Your task to perform on an android device: turn notification dots on Image 0: 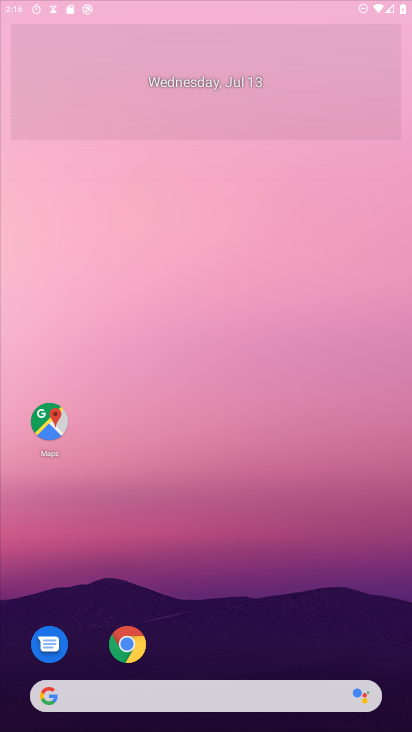
Step 0: press home button
Your task to perform on an android device: turn notification dots on Image 1: 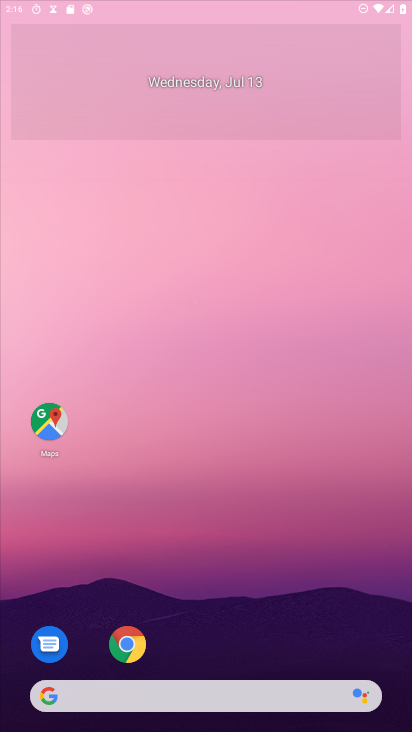
Step 1: click (237, 79)
Your task to perform on an android device: turn notification dots on Image 2: 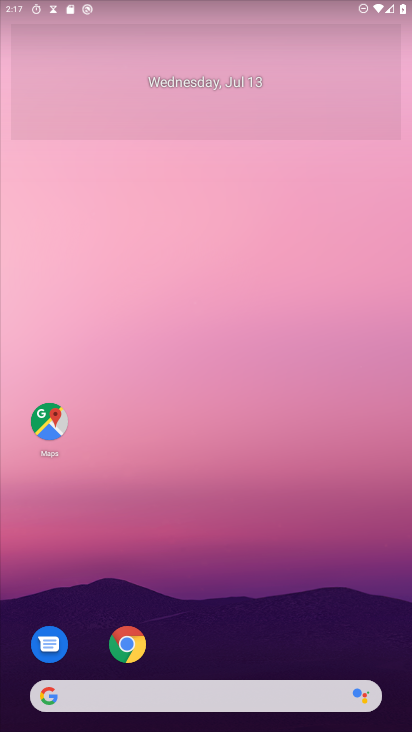
Step 2: drag from (216, 638) to (242, 73)
Your task to perform on an android device: turn notification dots on Image 3: 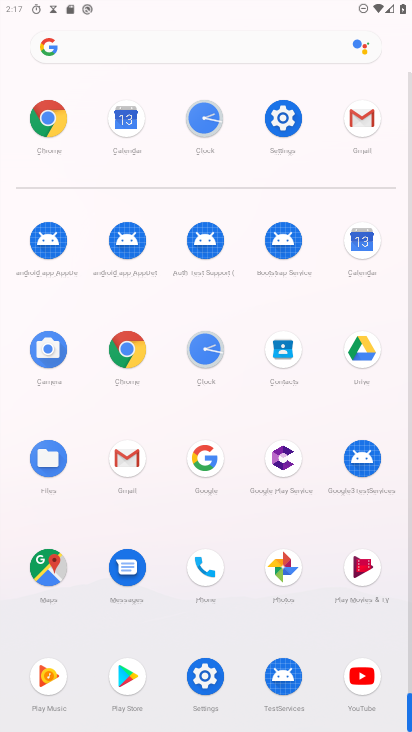
Step 3: click (297, 130)
Your task to perform on an android device: turn notification dots on Image 4: 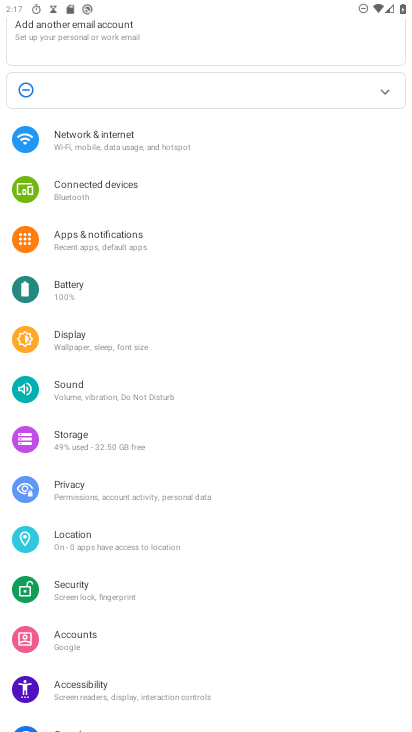
Step 4: click (102, 237)
Your task to perform on an android device: turn notification dots on Image 5: 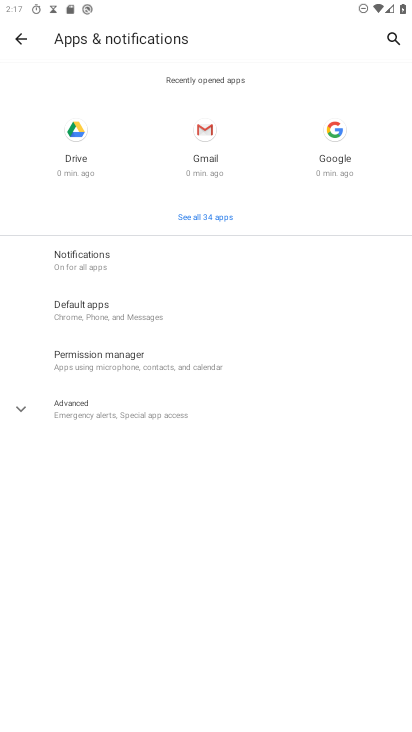
Step 5: click (66, 254)
Your task to perform on an android device: turn notification dots on Image 6: 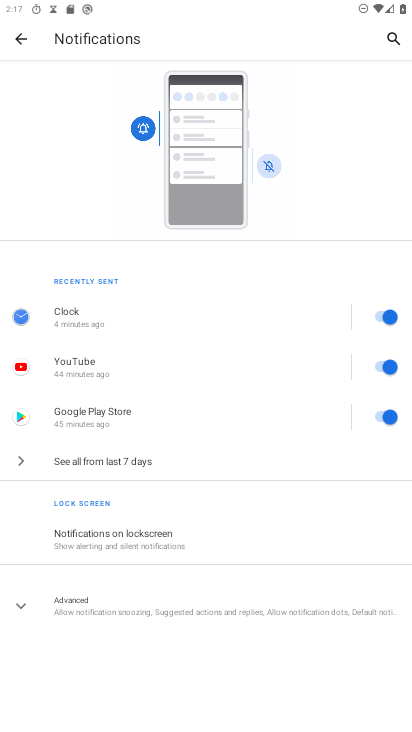
Step 6: click (18, 607)
Your task to perform on an android device: turn notification dots on Image 7: 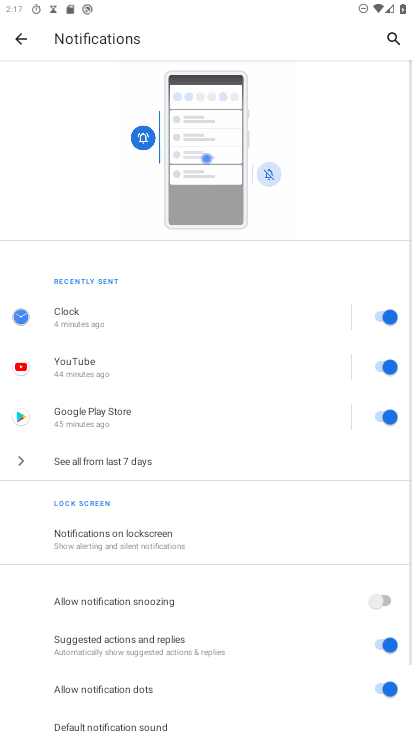
Step 7: task complete